Your task to perform on an android device: Open calendar and show me the fourth week of next month Image 0: 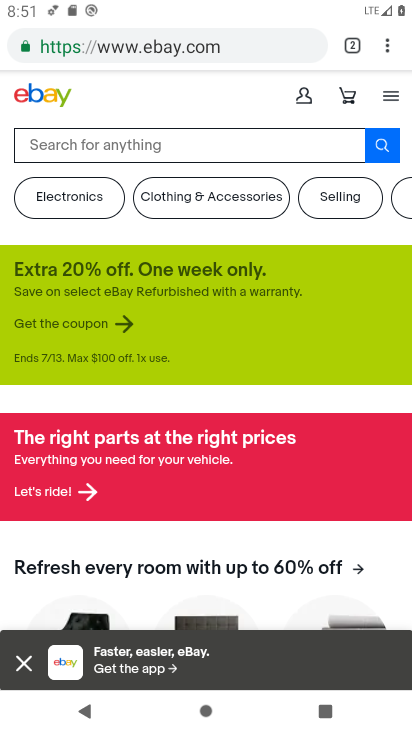
Step 0: press home button
Your task to perform on an android device: Open calendar and show me the fourth week of next month Image 1: 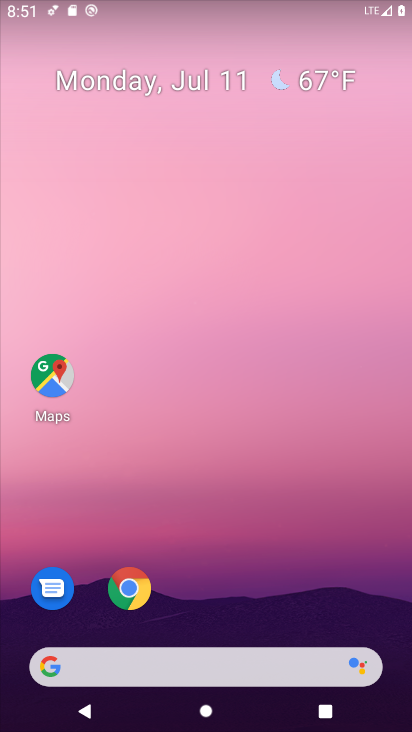
Step 1: drag from (270, 570) to (401, 33)
Your task to perform on an android device: Open calendar and show me the fourth week of next month Image 2: 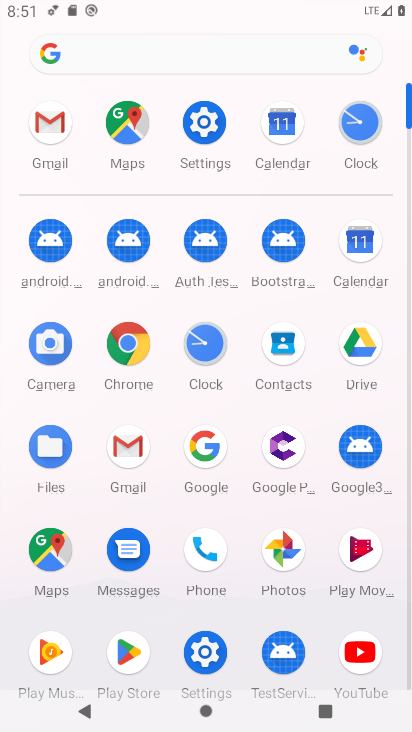
Step 2: click (284, 122)
Your task to perform on an android device: Open calendar and show me the fourth week of next month Image 3: 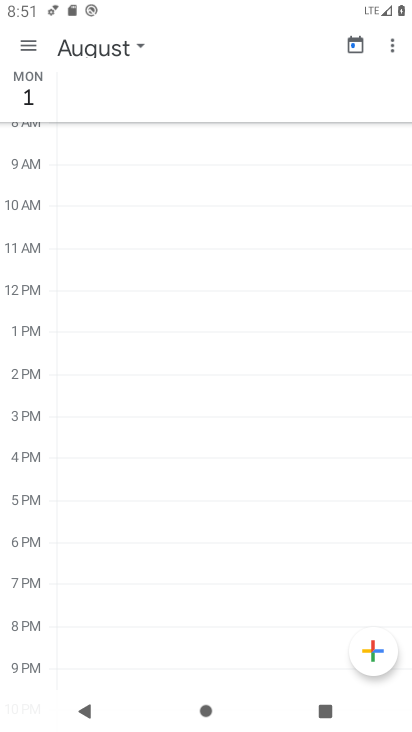
Step 3: click (85, 48)
Your task to perform on an android device: Open calendar and show me the fourth week of next month Image 4: 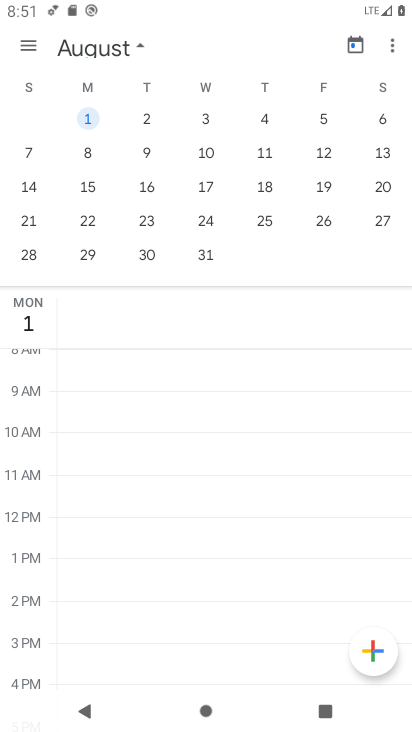
Step 4: click (28, 224)
Your task to perform on an android device: Open calendar and show me the fourth week of next month Image 5: 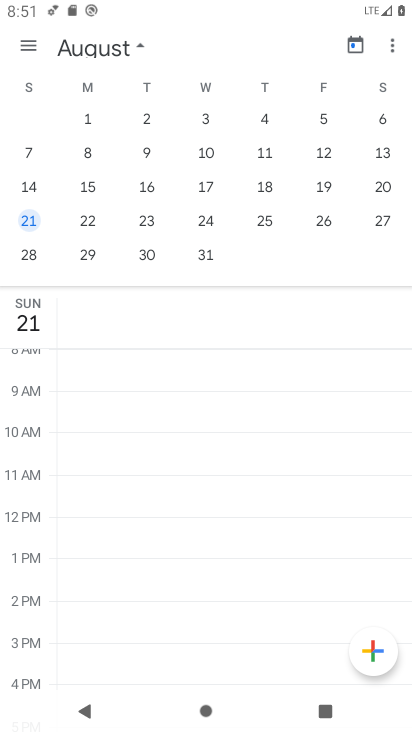
Step 5: task complete